Your task to perform on an android device: open chrome privacy settings Image 0: 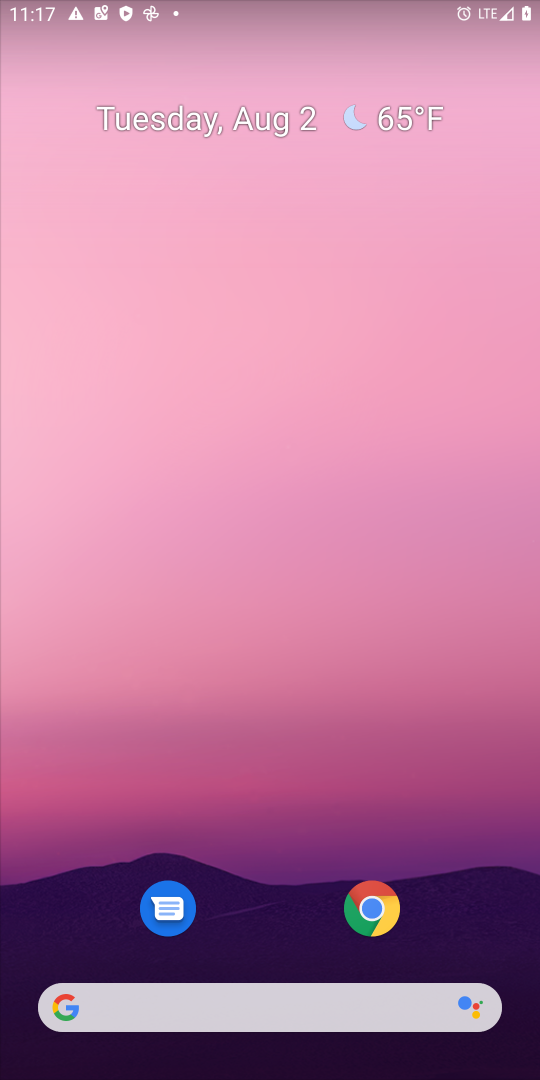
Step 0: drag from (269, 867) to (296, 223)
Your task to perform on an android device: open chrome privacy settings Image 1: 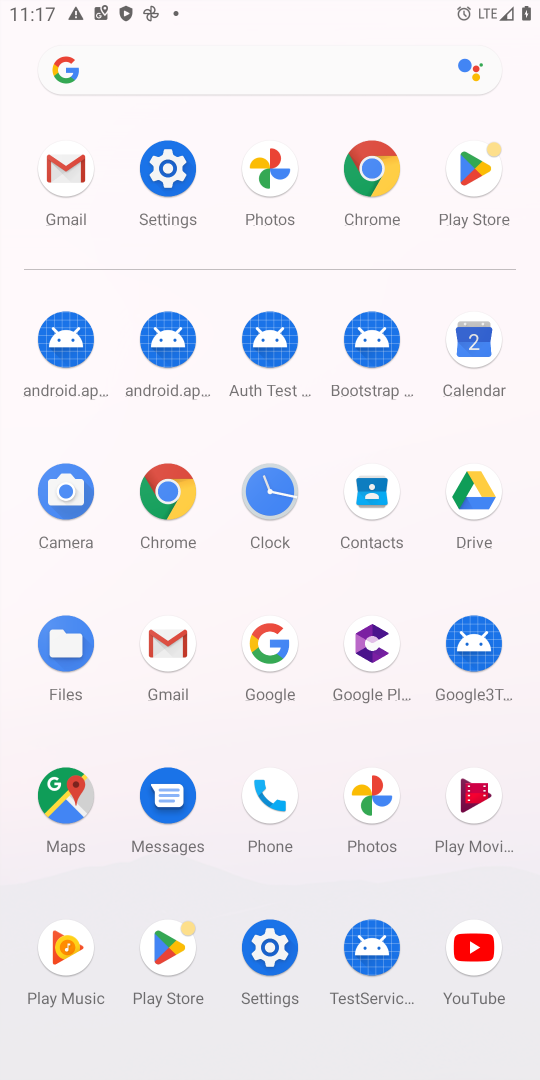
Step 1: click (210, 522)
Your task to perform on an android device: open chrome privacy settings Image 2: 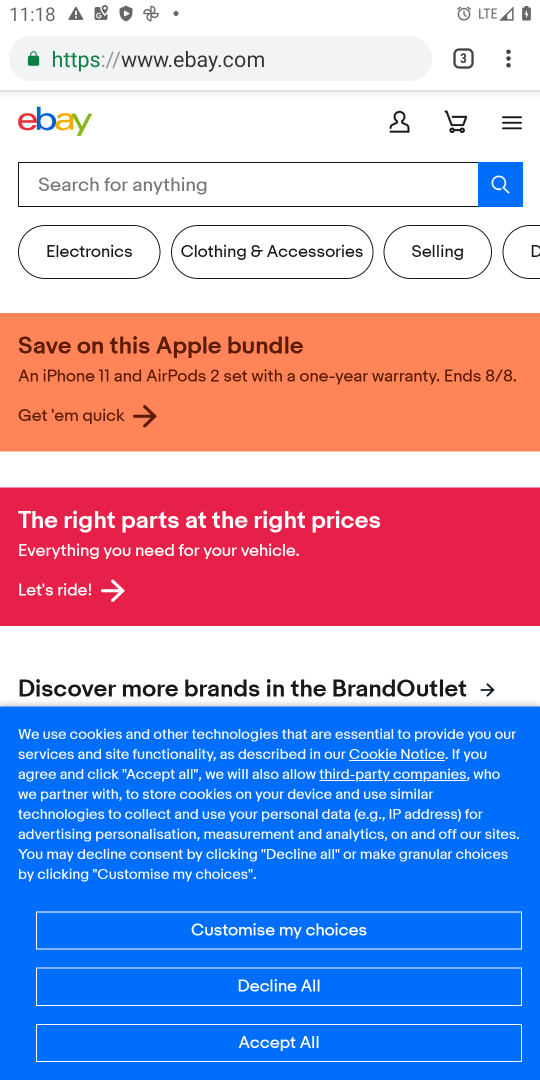
Step 2: click (509, 46)
Your task to perform on an android device: open chrome privacy settings Image 3: 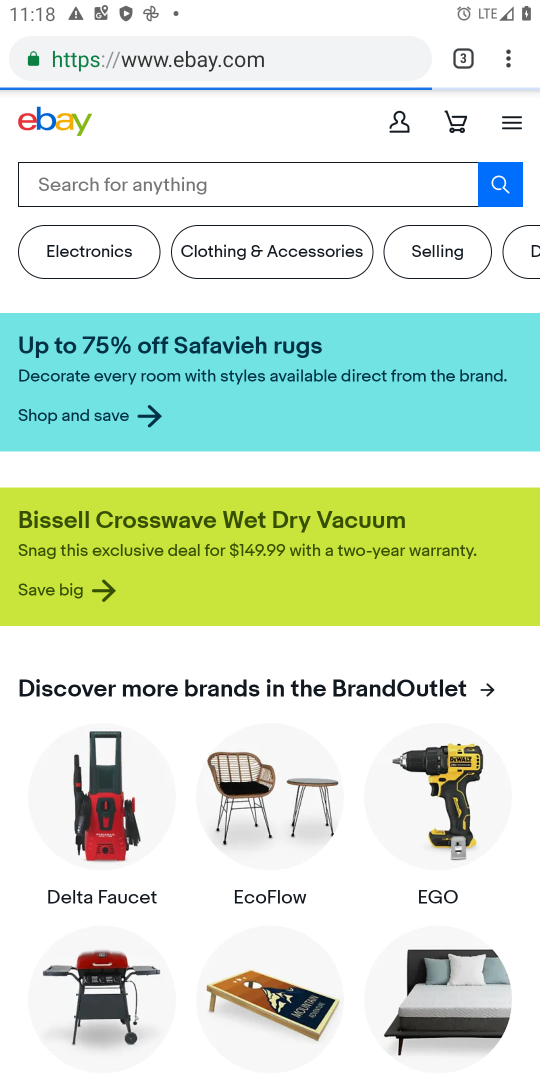
Step 3: click (505, 58)
Your task to perform on an android device: open chrome privacy settings Image 4: 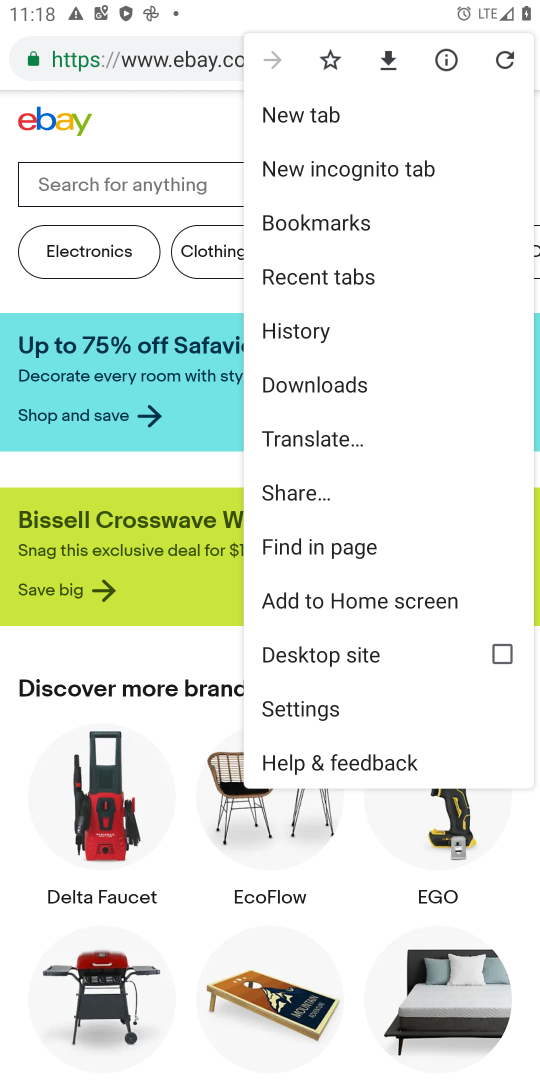
Step 4: click (297, 709)
Your task to perform on an android device: open chrome privacy settings Image 5: 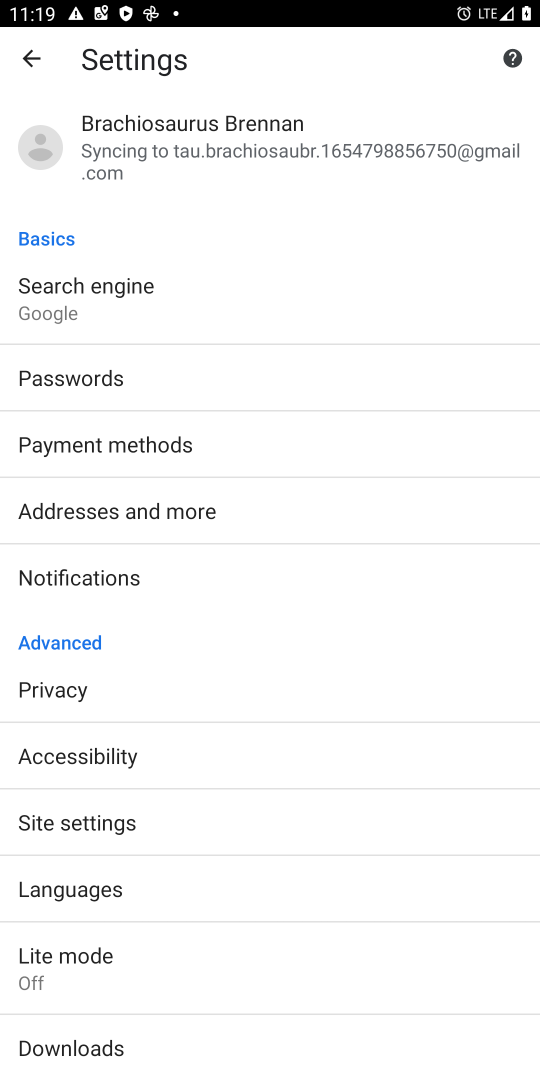
Step 5: click (330, 721)
Your task to perform on an android device: open chrome privacy settings Image 6: 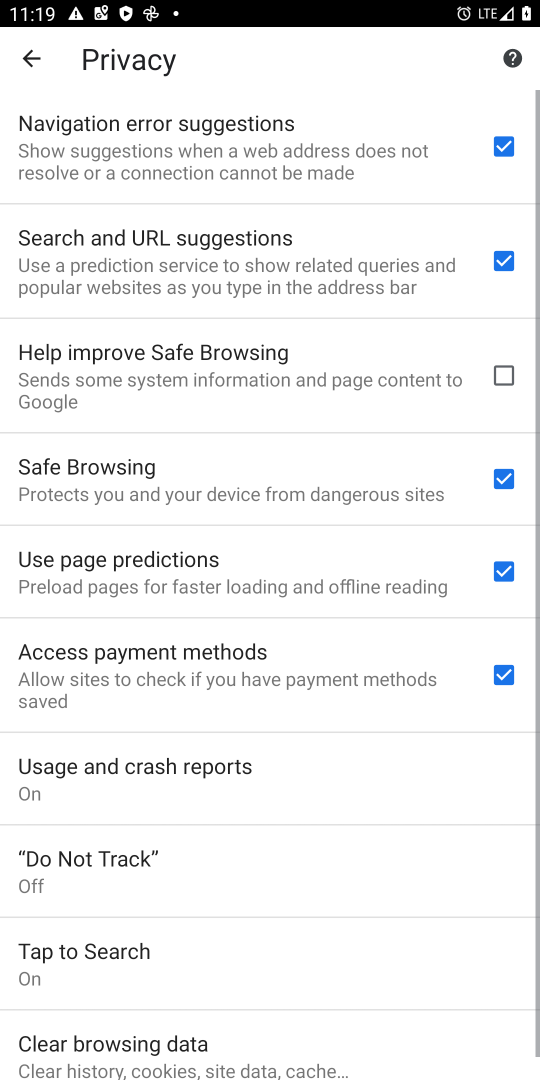
Step 6: task complete